Your task to perform on an android device: Open maps Image 0: 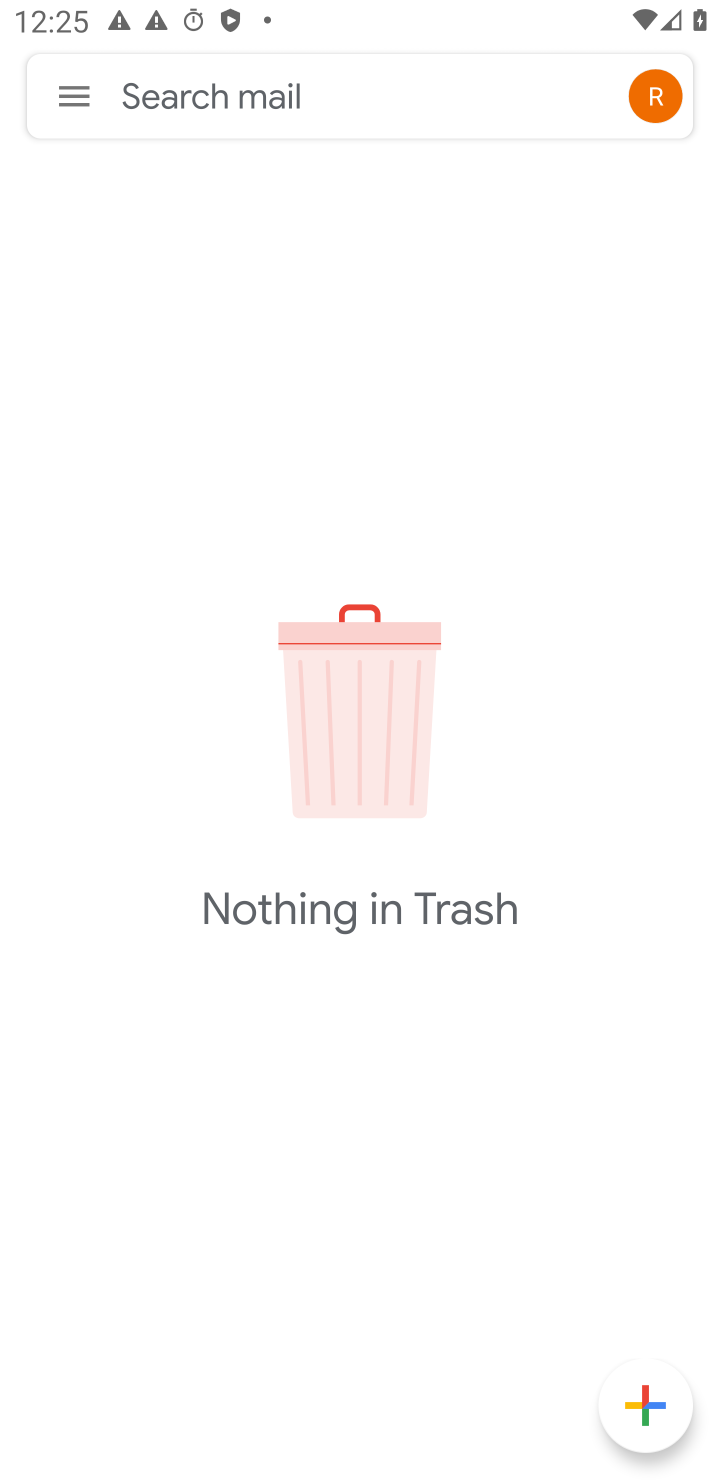
Step 0: press home button
Your task to perform on an android device: Open maps Image 1: 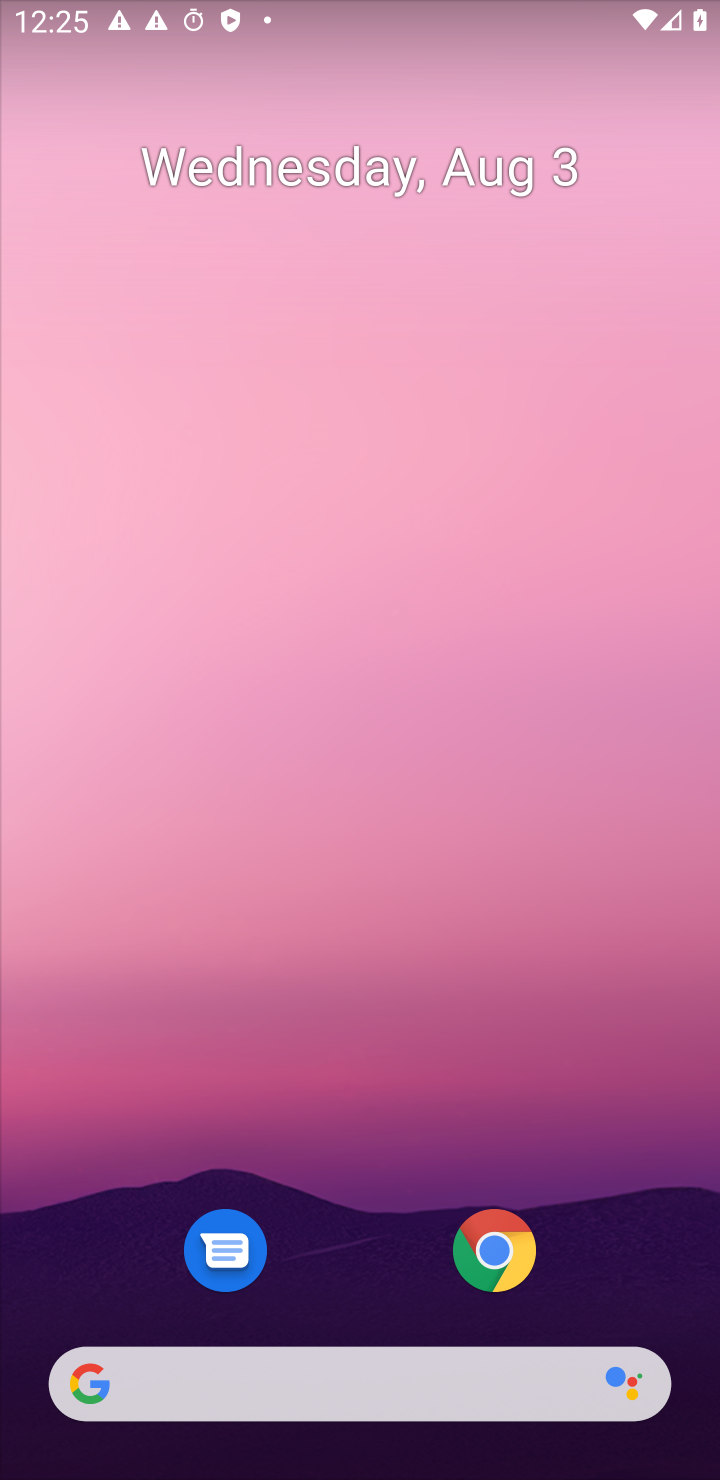
Step 1: press home button
Your task to perform on an android device: Open maps Image 2: 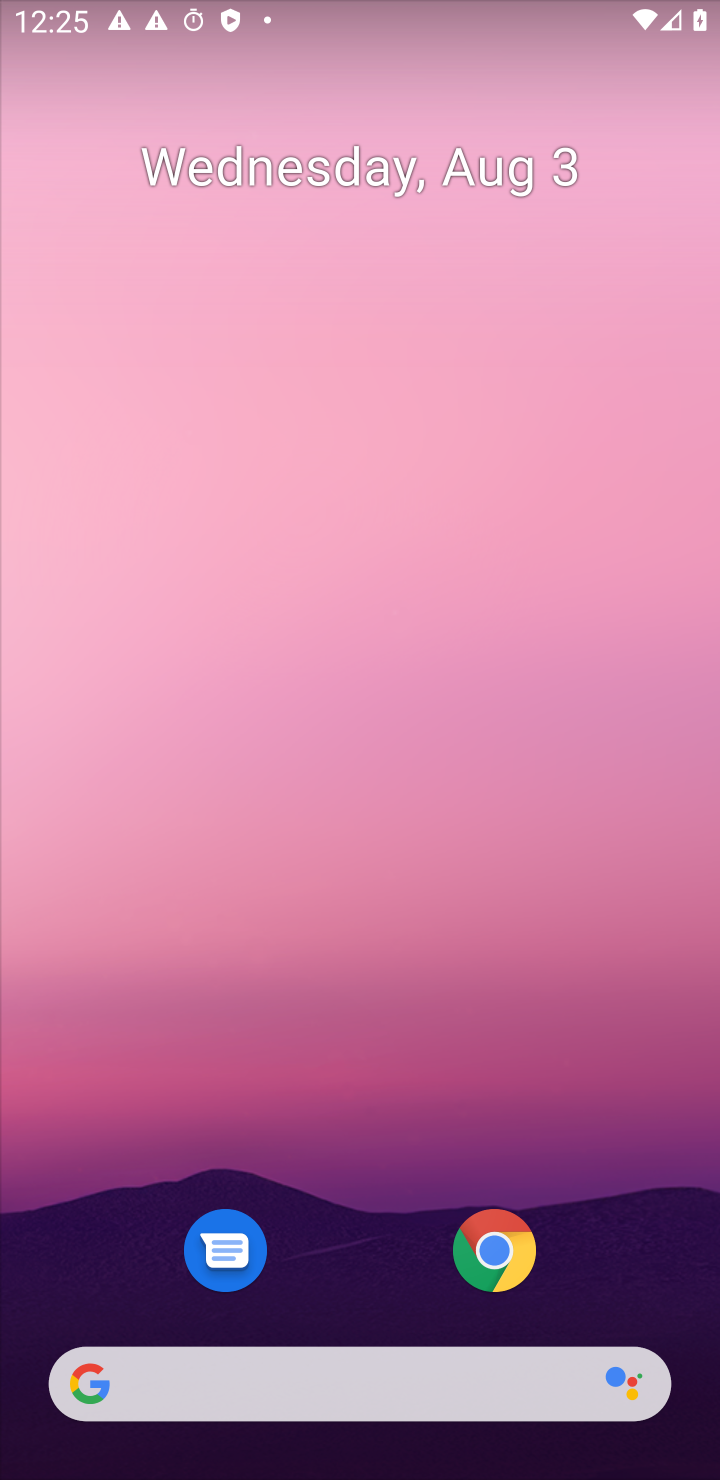
Step 2: drag from (267, 1045) to (201, 71)
Your task to perform on an android device: Open maps Image 3: 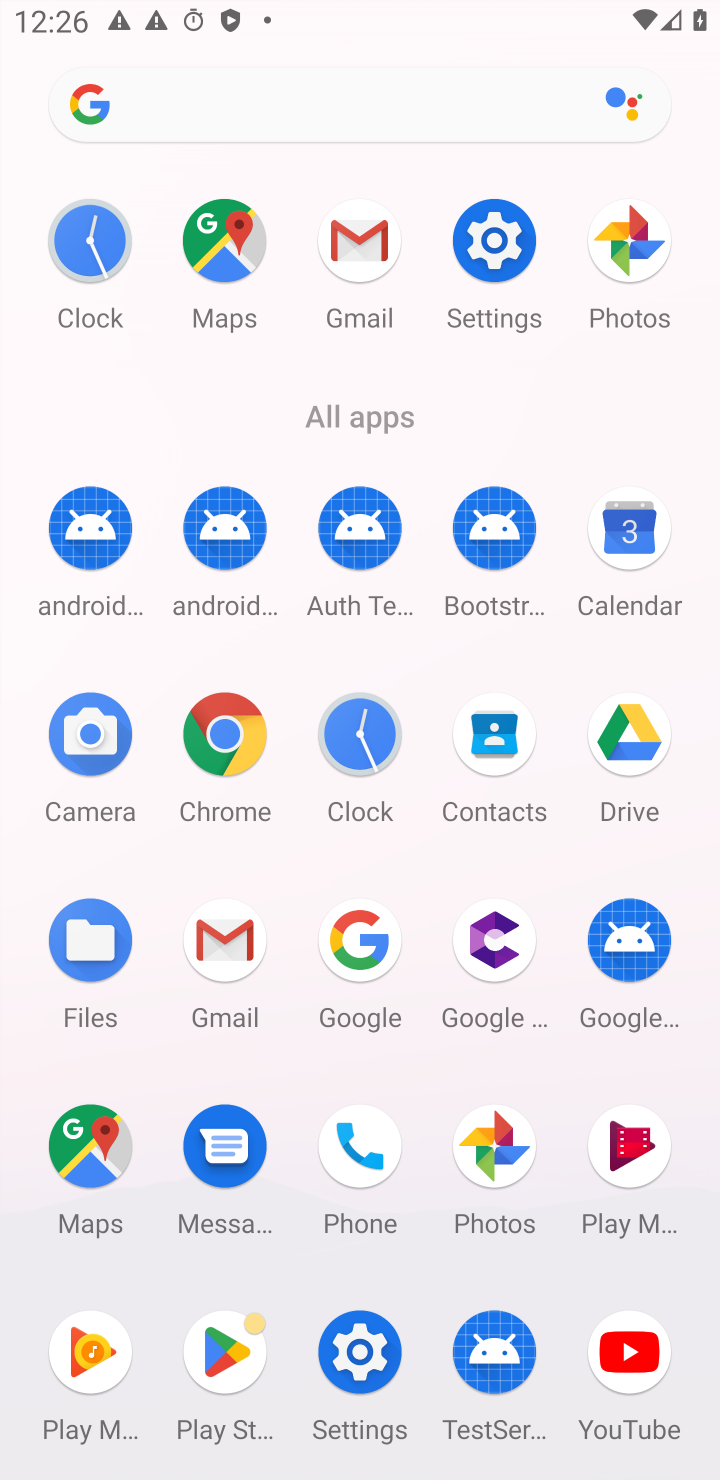
Step 3: click (112, 1128)
Your task to perform on an android device: Open maps Image 4: 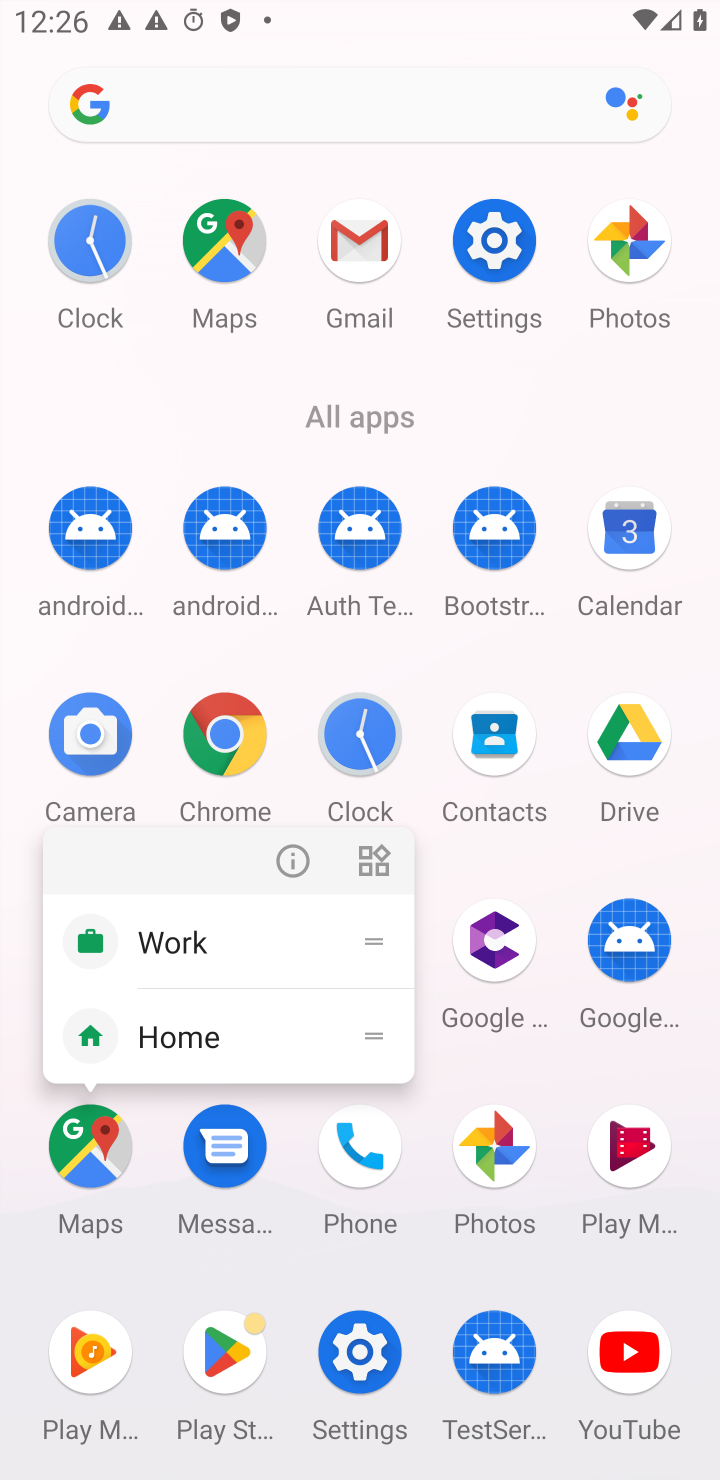
Step 4: click (91, 1134)
Your task to perform on an android device: Open maps Image 5: 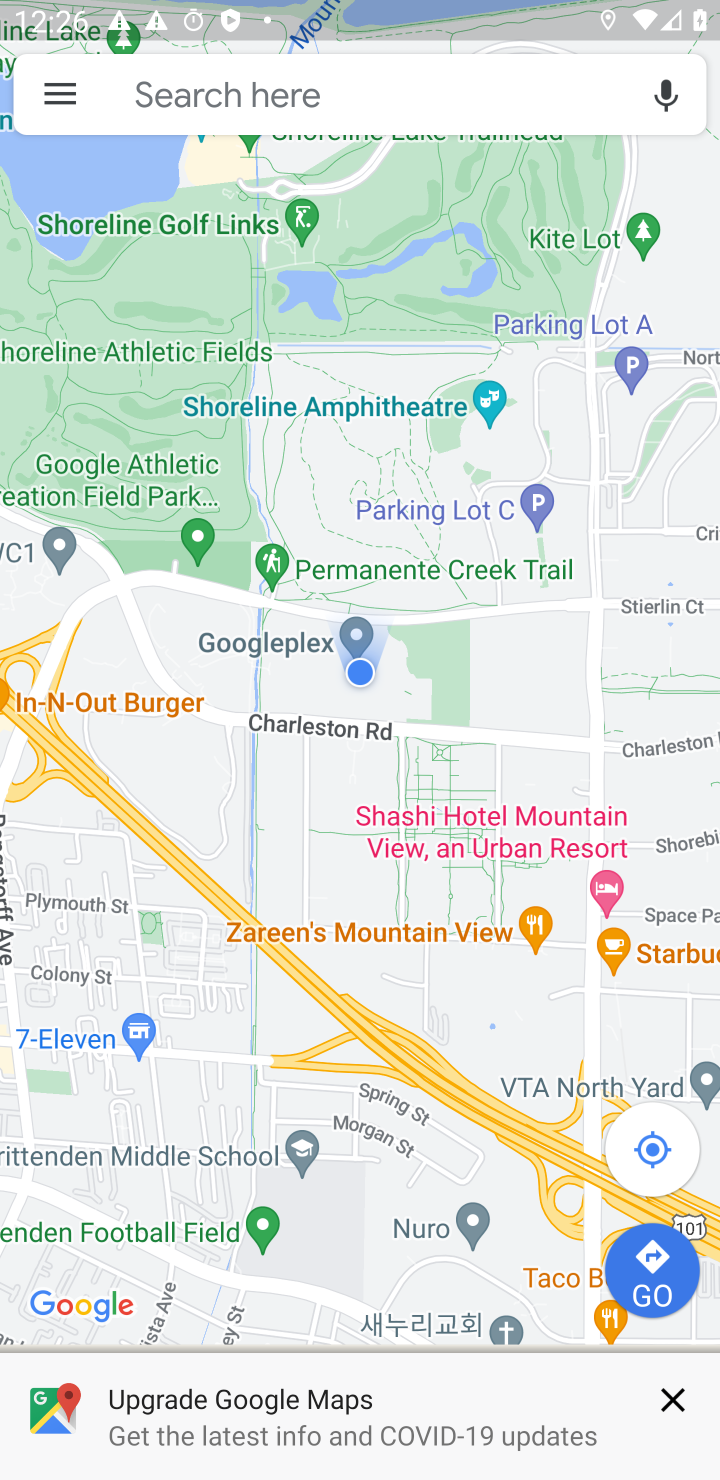
Step 5: task complete